Your task to perform on an android device: Show the shopping cart on costco. Image 0: 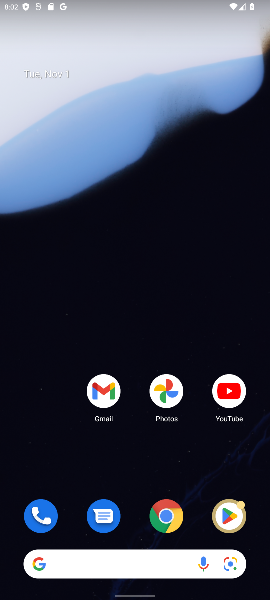
Step 0: press home button
Your task to perform on an android device: Show the shopping cart on costco. Image 1: 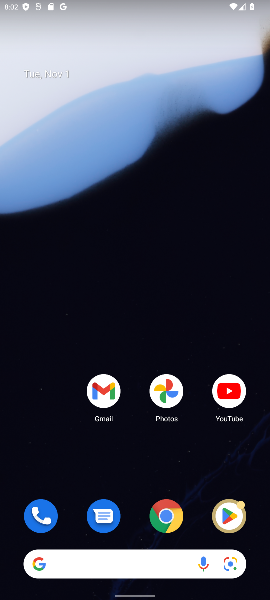
Step 1: drag from (135, 482) to (158, 65)
Your task to perform on an android device: Show the shopping cart on costco. Image 2: 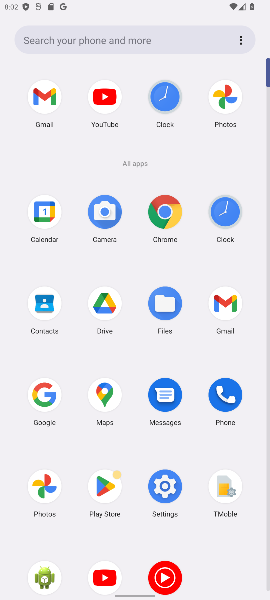
Step 2: click (162, 211)
Your task to perform on an android device: Show the shopping cart on costco. Image 3: 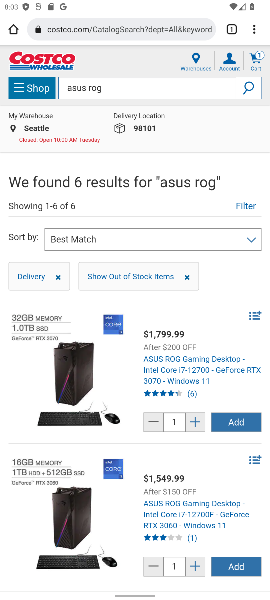
Step 3: click (261, 60)
Your task to perform on an android device: Show the shopping cart on costco. Image 4: 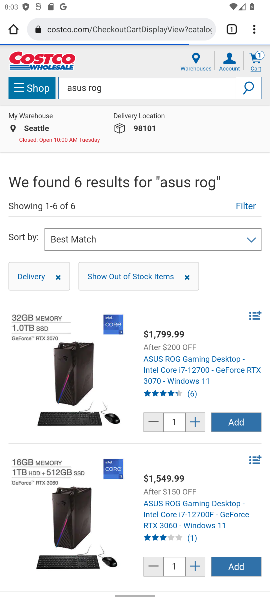
Step 4: task complete